Your task to perform on an android device: change keyboard looks Image 0: 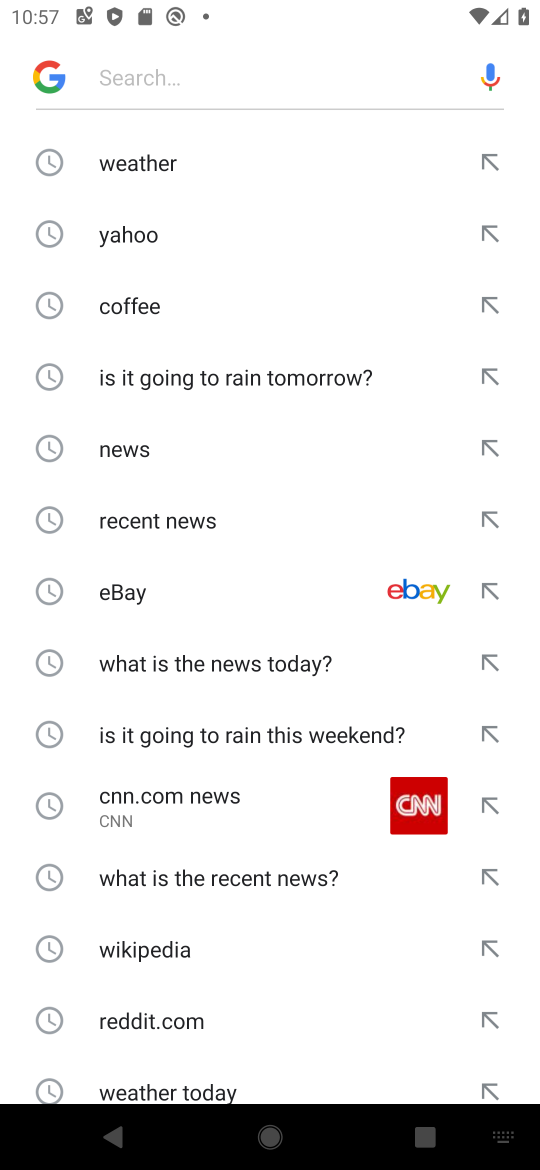
Step 0: press home button
Your task to perform on an android device: change keyboard looks Image 1: 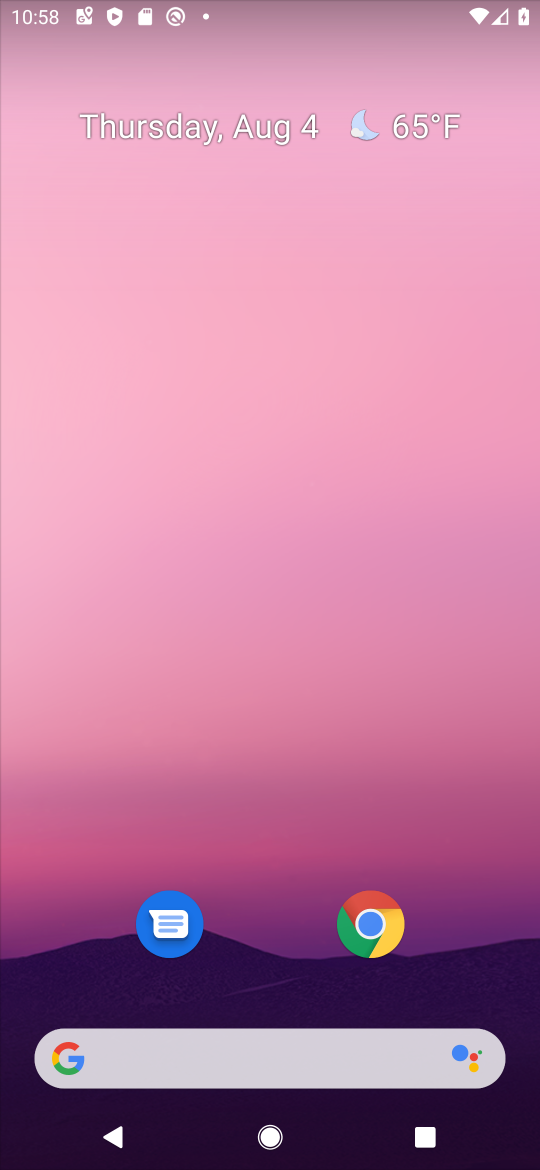
Step 1: drag from (270, 830) to (352, 277)
Your task to perform on an android device: change keyboard looks Image 2: 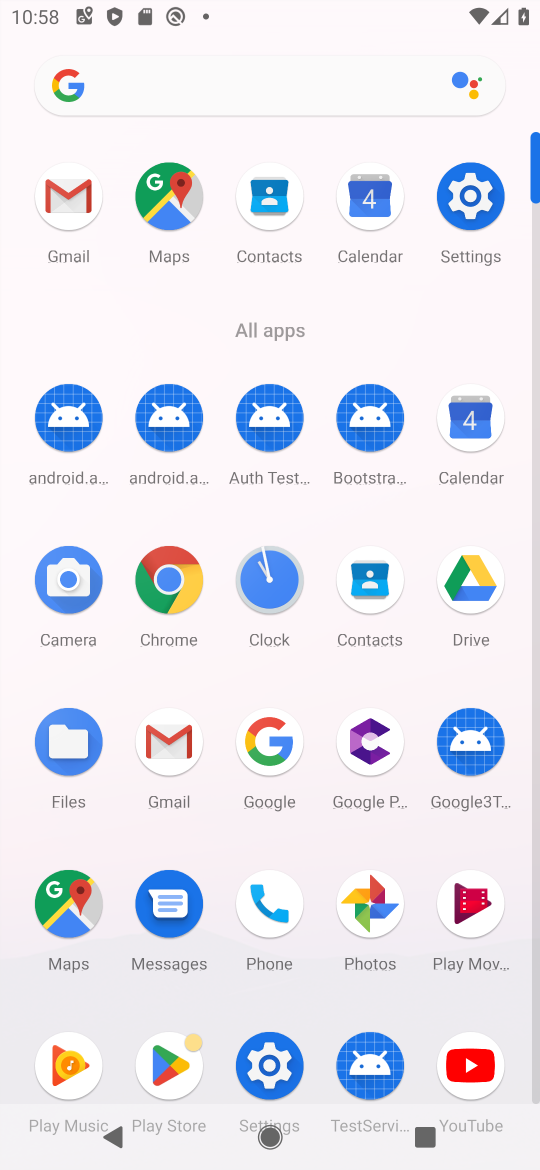
Step 2: click (463, 221)
Your task to perform on an android device: change keyboard looks Image 3: 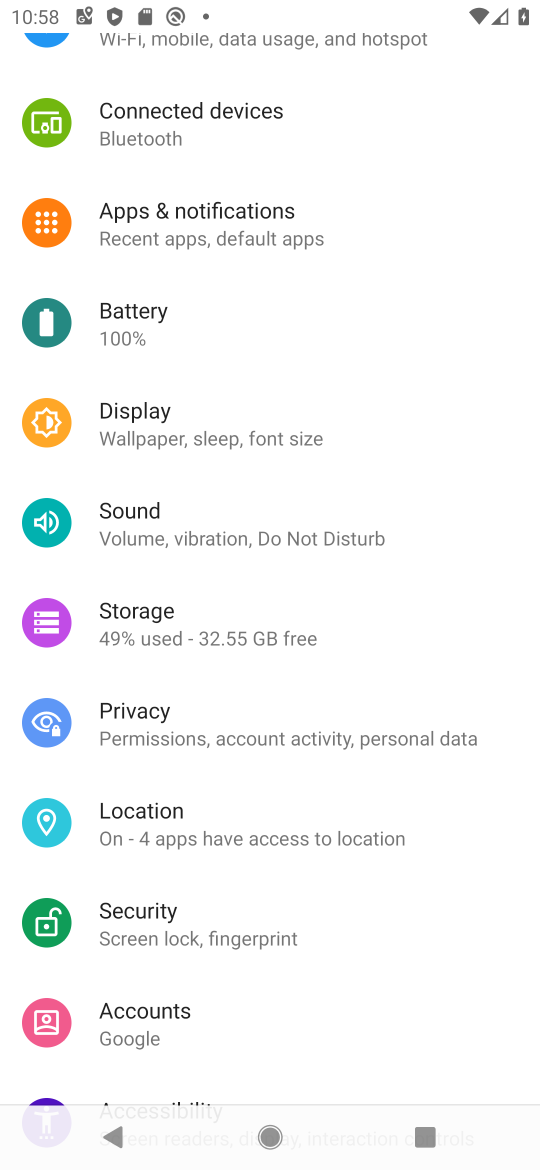
Step 3: task complete